Your task to perform on an android device: Open Google Maps and go to "Timeline" Image 0: 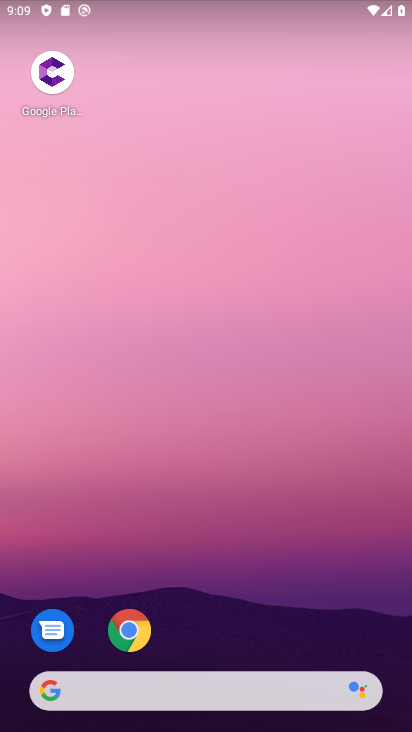
Step 0: drag from (144, 501) to (144, 21)
Your task to perform on an android device: Open Google Maps and go to "Timeline" Image 1: 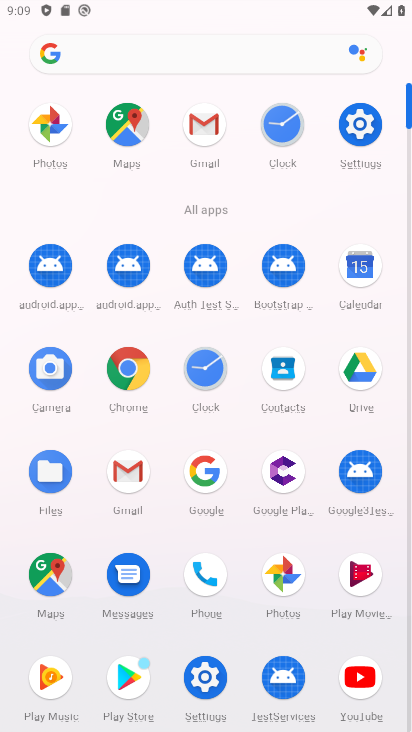
Step 1: click (128, 123)
Your task to perform on an android device: Open Google Maps and go to "Timeline" Image 2: 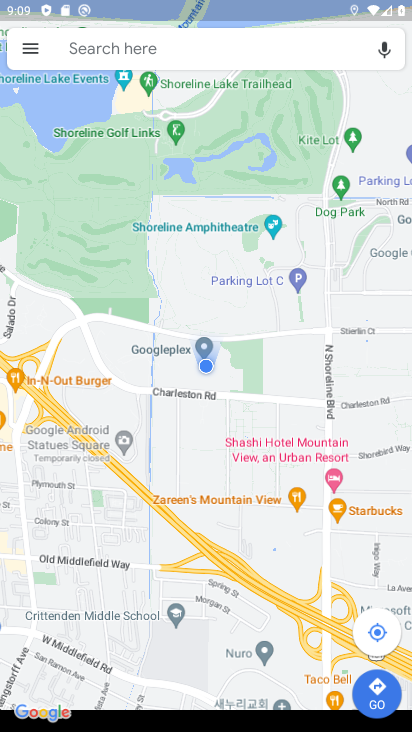
Step 2: click (31, 39)
Your task to perform on an android device: Open Google Maps and go to "Timeline" Image 3: 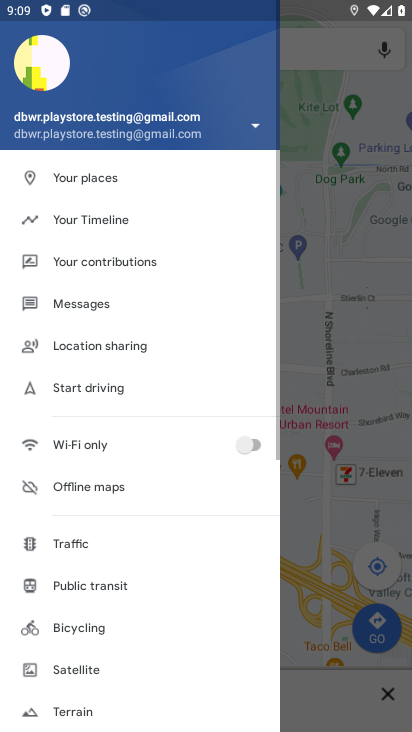
Step 3: click (93, 230)
Your task to perform on an android device: Open Google Maps and go to "Timeline" Image 4: 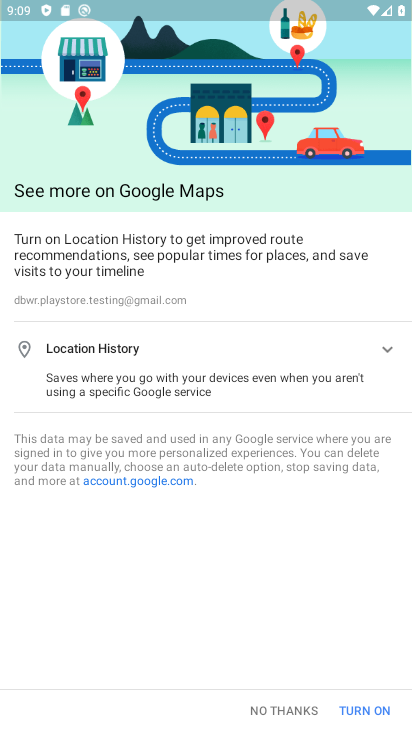
Step 4: click (371, 705)
Your task to perform on an android device: Open Google Maps and go to "Timeline" Image 5: 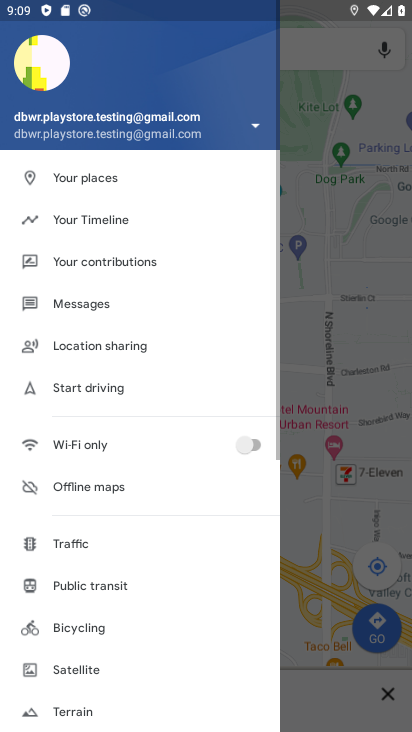
Step 5: click (121, 216)
Your task to perform on an android device: Open Google Maps and go to "Timeline" Image 6: 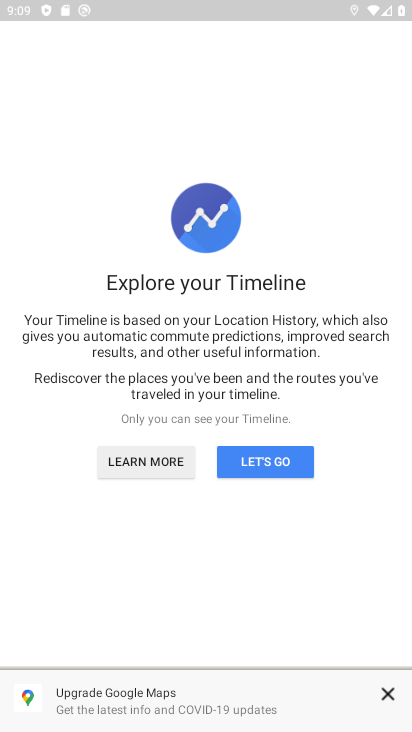
Step 6: click (256, 463)
Your task to perform on an android device: Open Google Maps and go to "Timeline" Image 7: 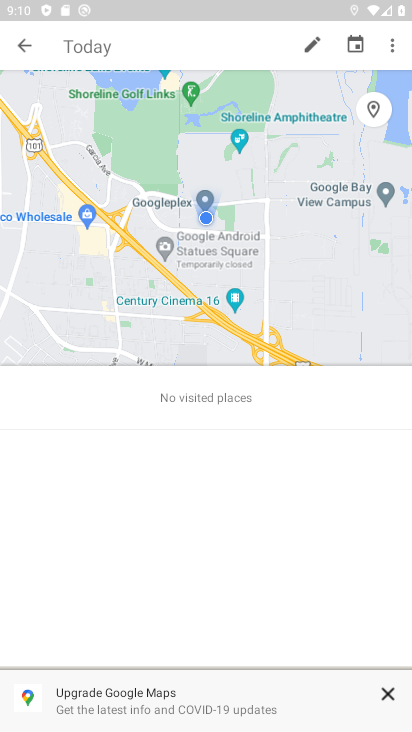
Step 7: task complete